Your task to perform on an android device: snooze an email in the gmail app Image 0: 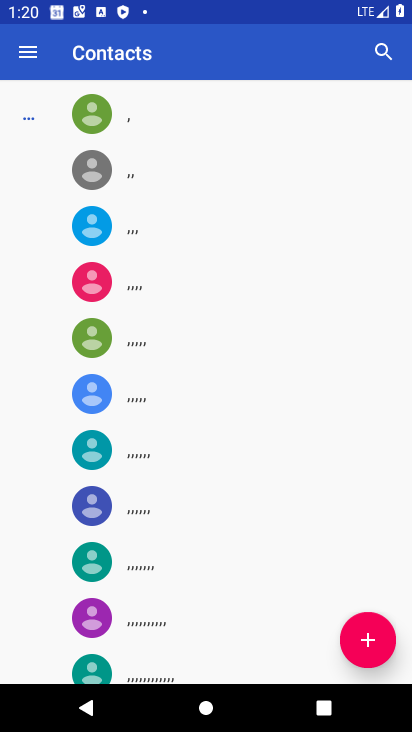
Step 0: press home button
Your task to perform on an android device: snooze an email in the gmail app Image 1: 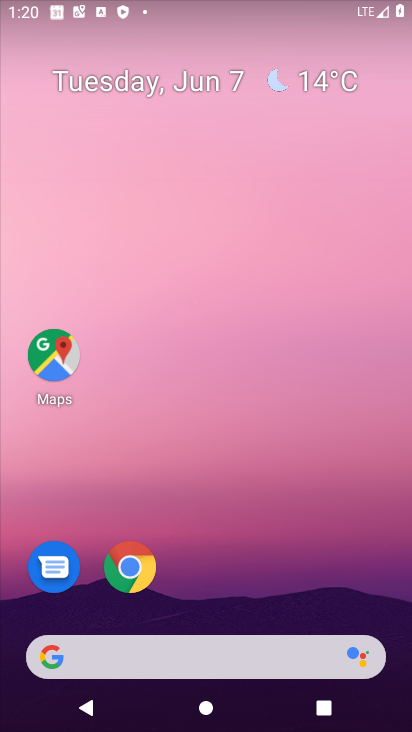
Step 1: drag from (347, 538) to (396, 353)
Your task to perform on an android device: snooze an email in the gmail app Image 2: 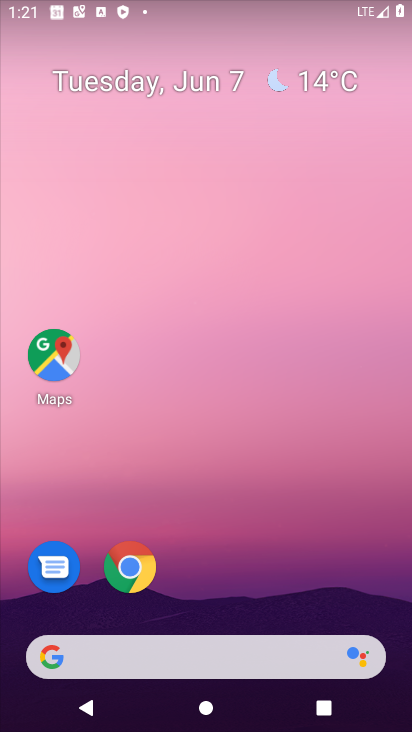
Step 2: click (117, 506)
Your task to perform on an android device: snooze an email in the gmail app Image 3: 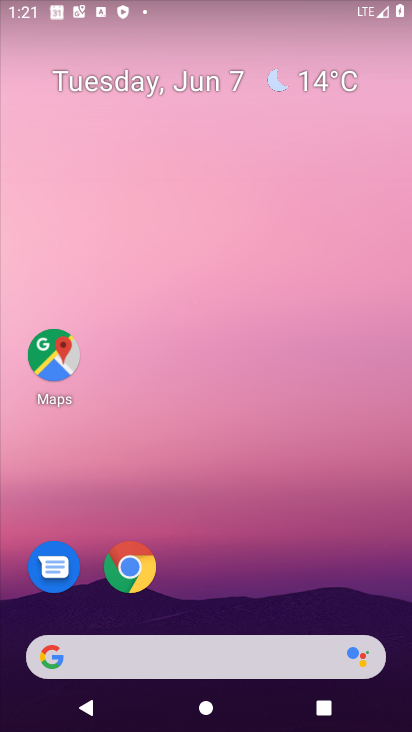
Step 3: drag from (275, 717) to (340, 54)
Your task to perform on an android device: snooze an email in the gmail app Image 4: 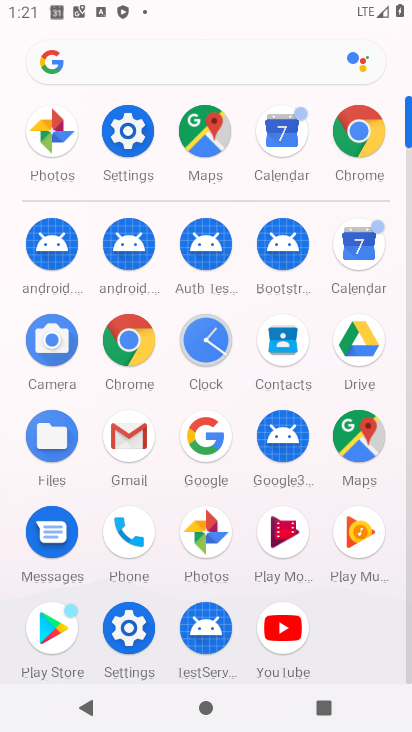
Step 4: click (121, 438)
Your task to perform on an android device: snooze an email in the gmail app Image 5: 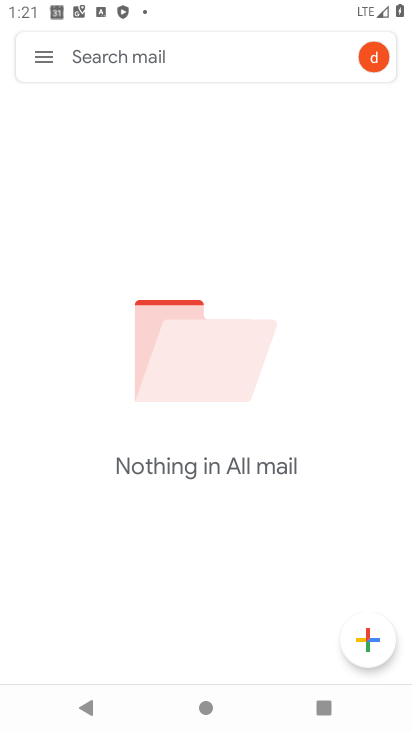
Step 5: click (33, 58)
Your task to perform on an android device: snooze an email in the gmail app Image 6: 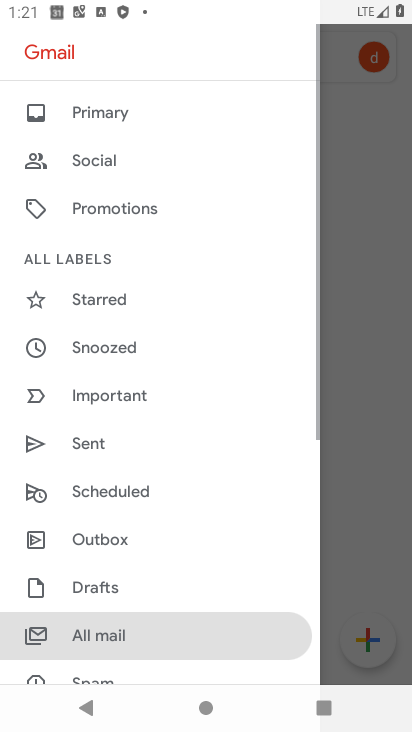
Step 6: click (132, 347)
Your task to perform on an android device: snooze an email in the gmail app Image 7: 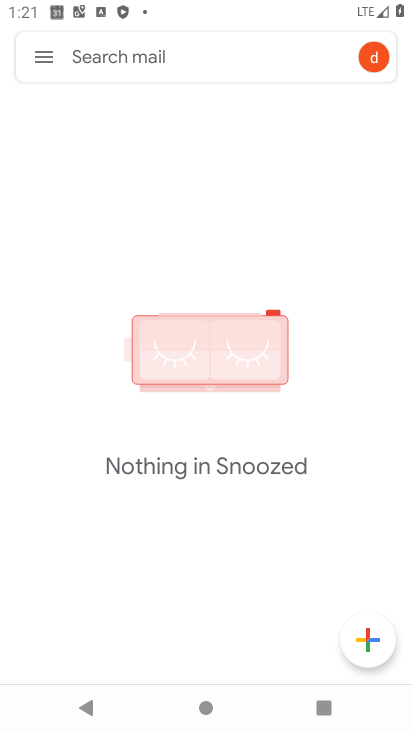
Step 7: task complete